Your task to perform on an android device: Open Google Maps Image 0: 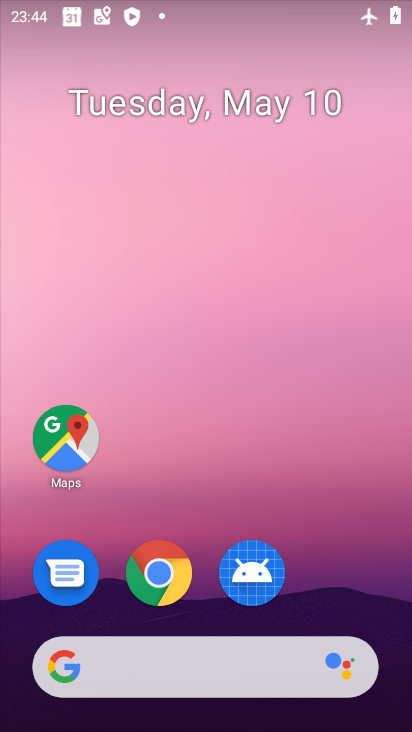
Step 0: click (53, 439)
Your task to perform on an android device: Open Google Maps Image 1: 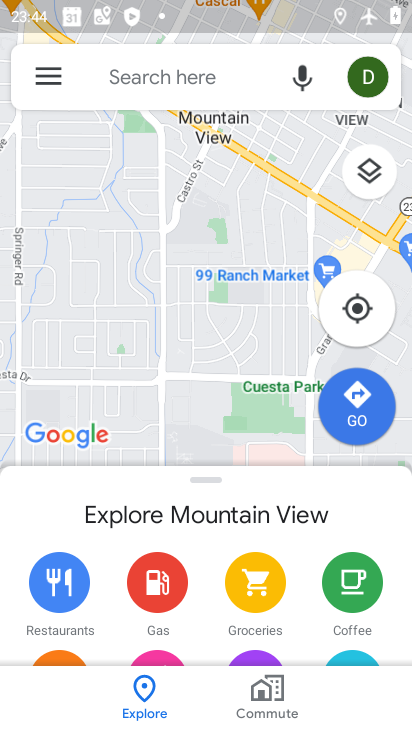
Step 1: task complete